Your task to perform on an android device: search for starred emails in the gmail app Image 0: 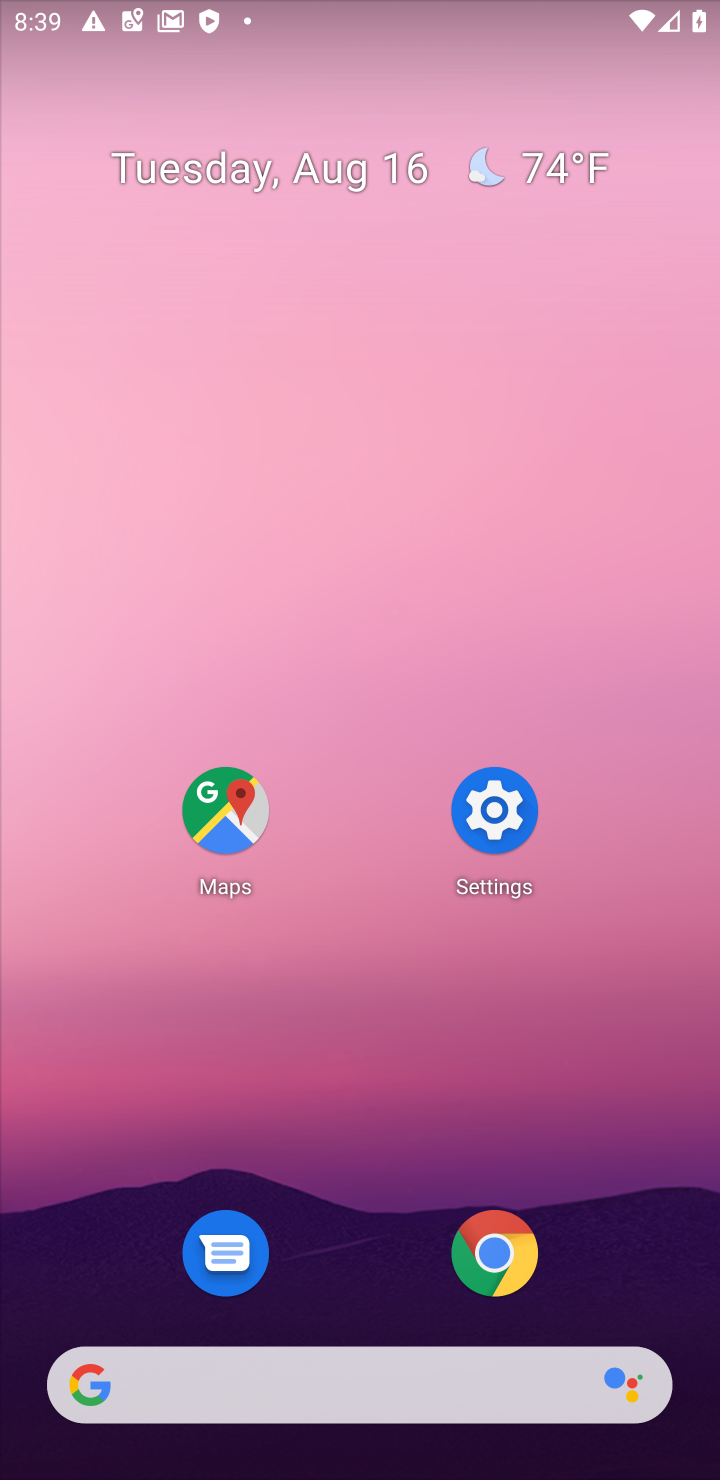
Step 0: drag from (293, 1048) to (477, 63)
Your task to perform on an android device: search for starred emails in the gmail app Image 1: 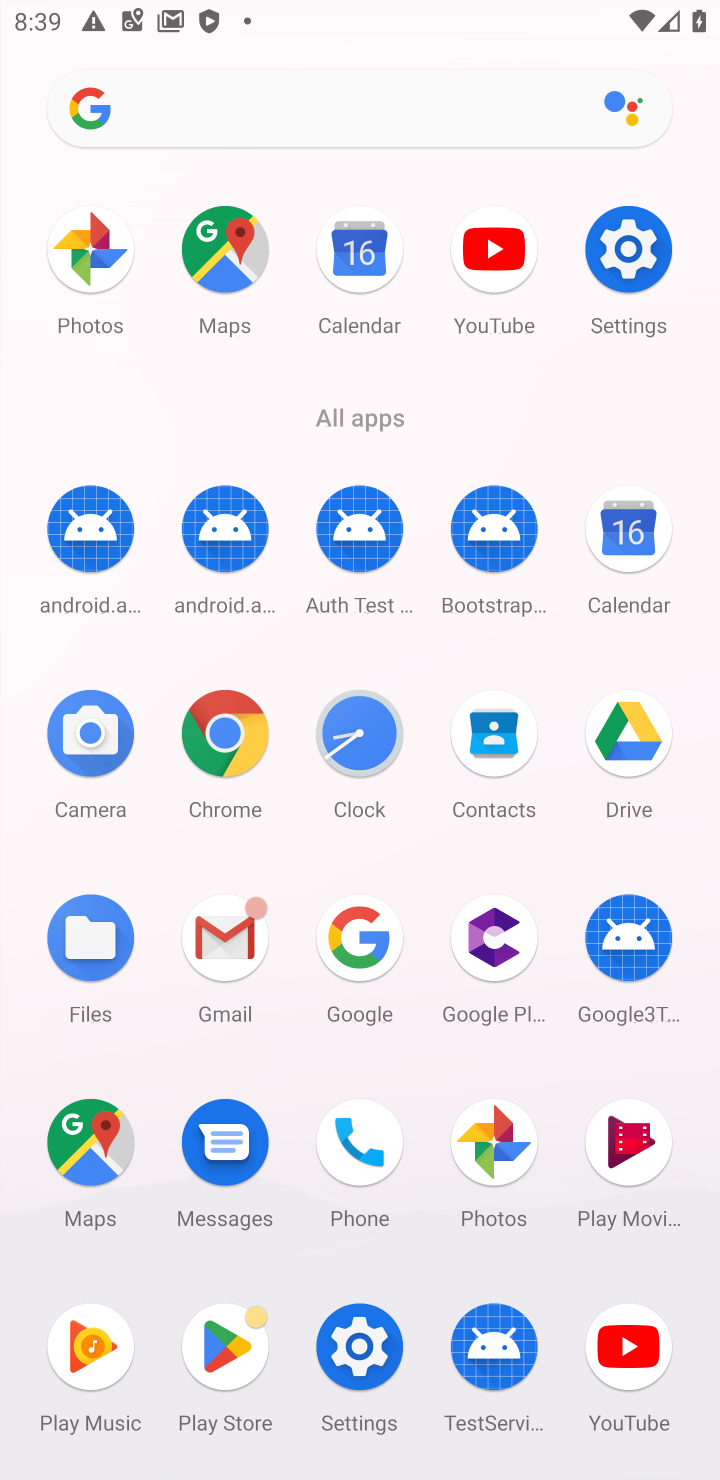
Step 1: click (225, 941)
Your task to perform on an android device: search for starred emails in the gmail app Image 2: 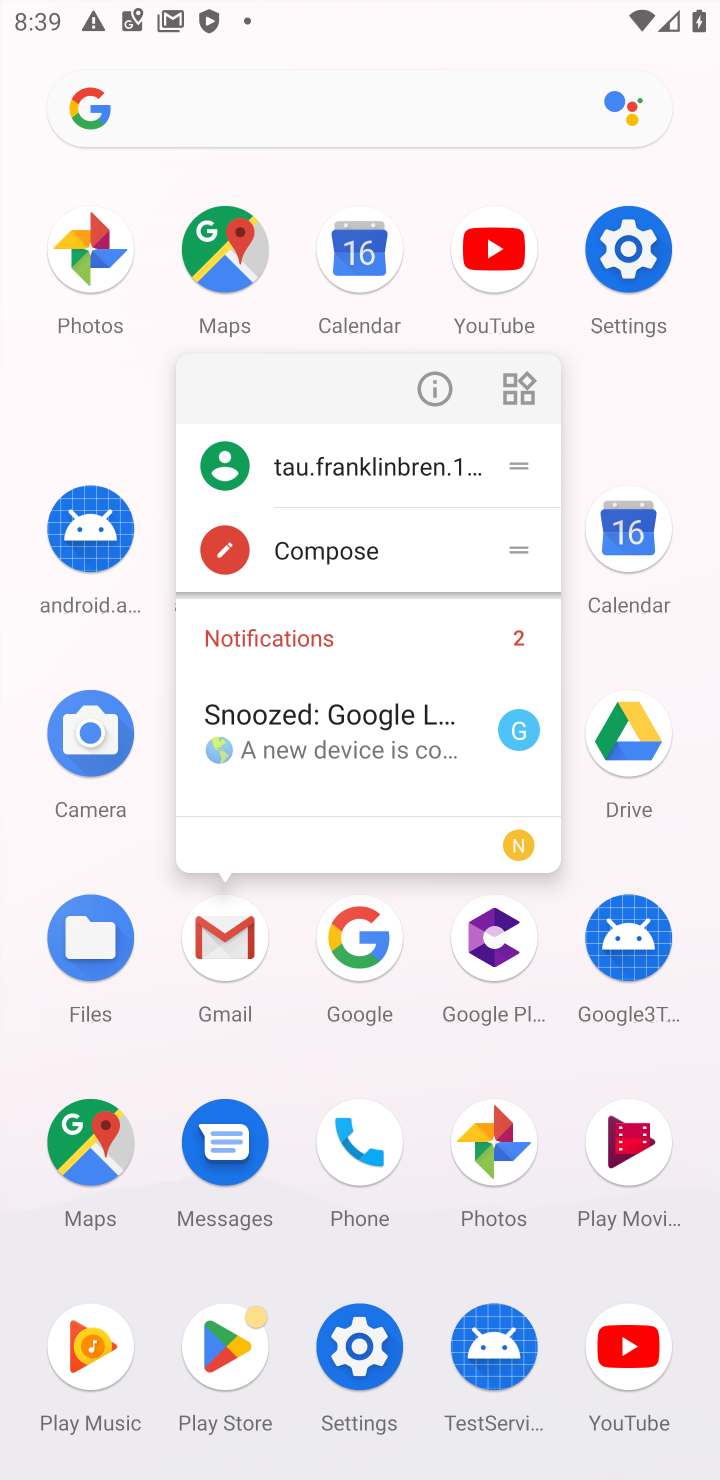
Step 2: click (225, 949)
Your task to perform on an android device: search for starred emails in the gmail app Image 3: 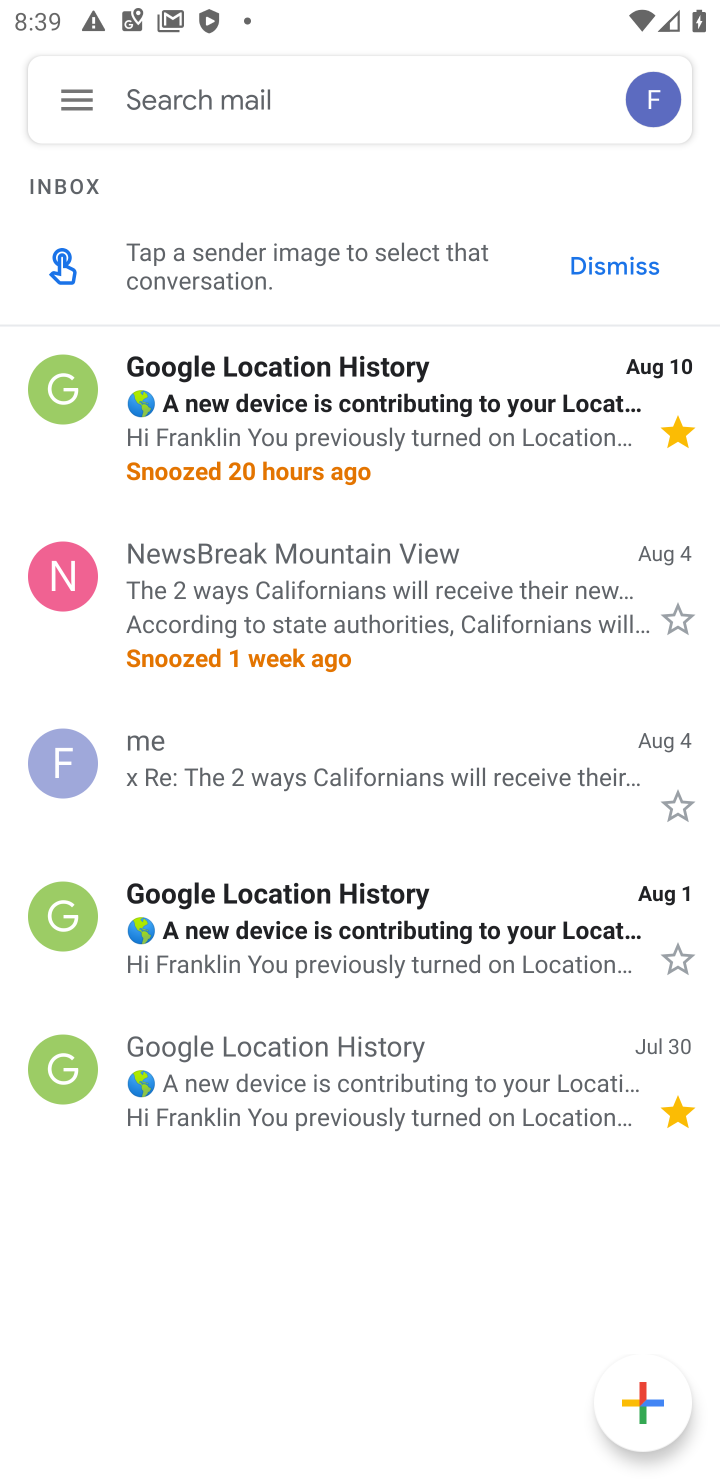
Step 3: click (68, 95)
Your task to perform on an android device: search for starred emails in the gmail app Image 4: 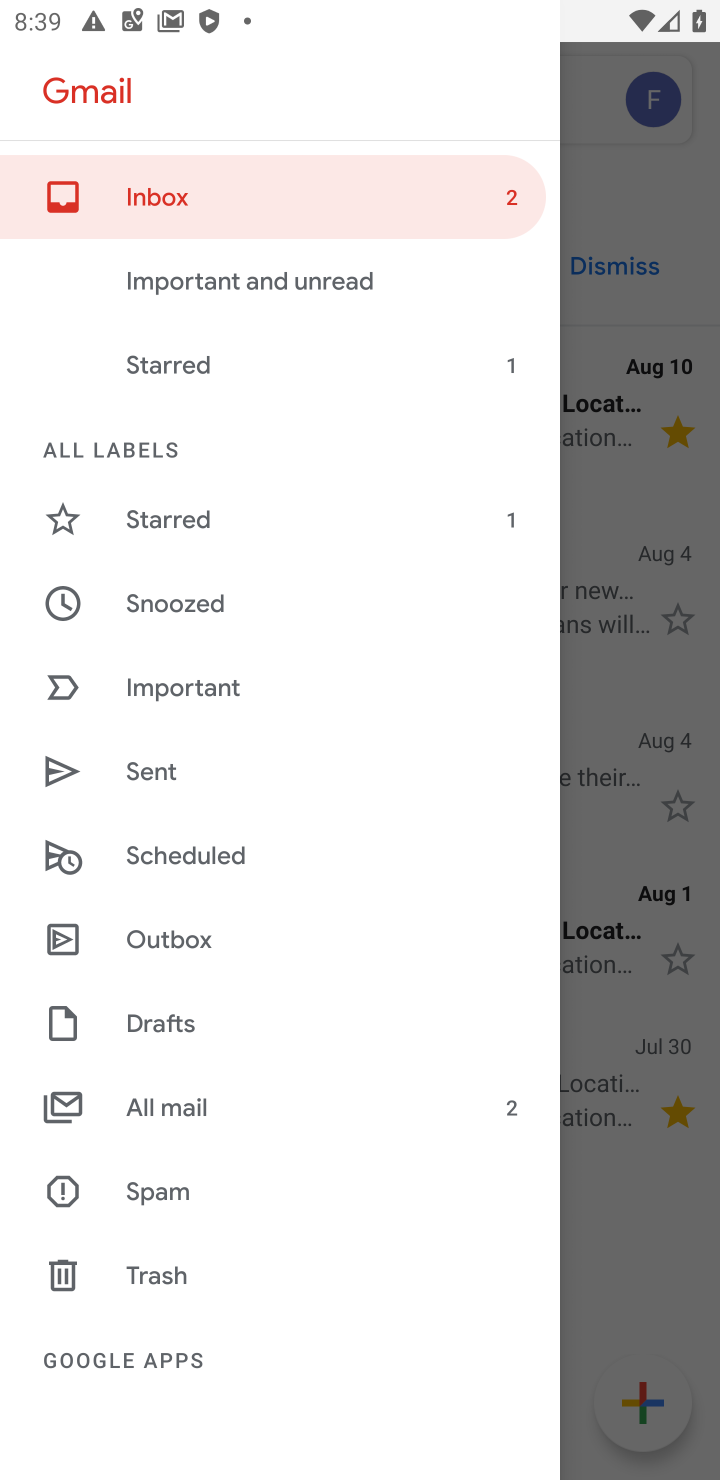
Step 4: click (162, 518)
Your task to perform on an android device: search for starred emails in the gmail app Image 5: 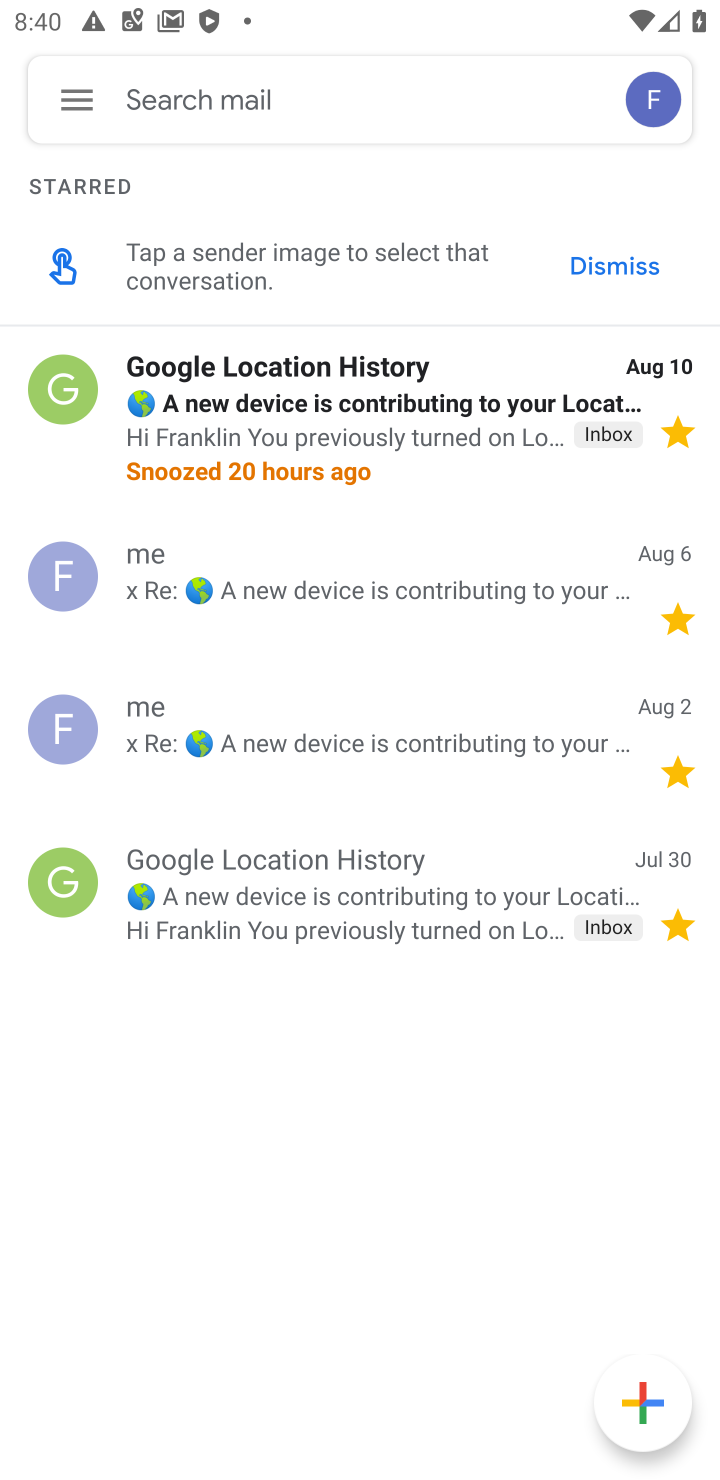
Step 5: task complete